Your task to perform on an android device: install app "LiveIn - Share Your Moment" Image 0: 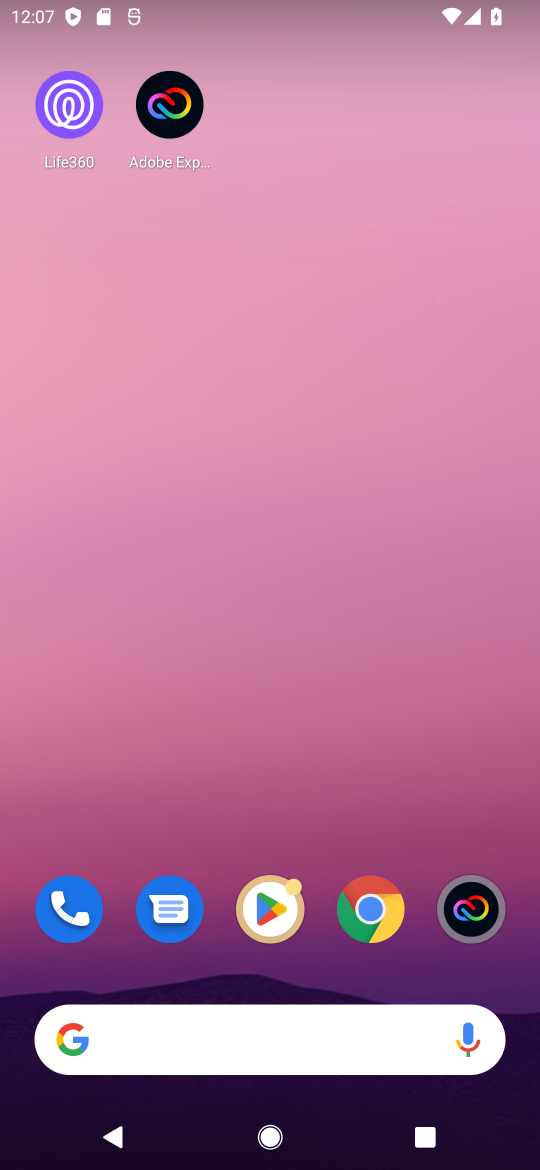
Step 0: click (255, 914)
Your task to perform on an android device: install app "LiveIn - Share Your Moment" Image 1: 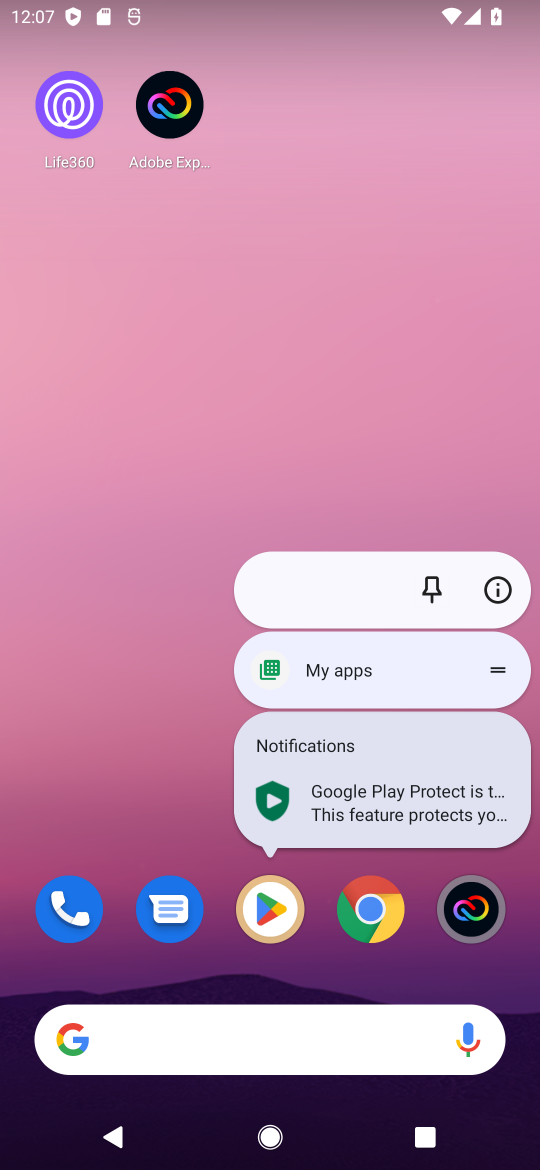
Step 1: click (272, 908)
Your task to perform on an android device: install app "LiveIn - Share Your Moment" Image 2: 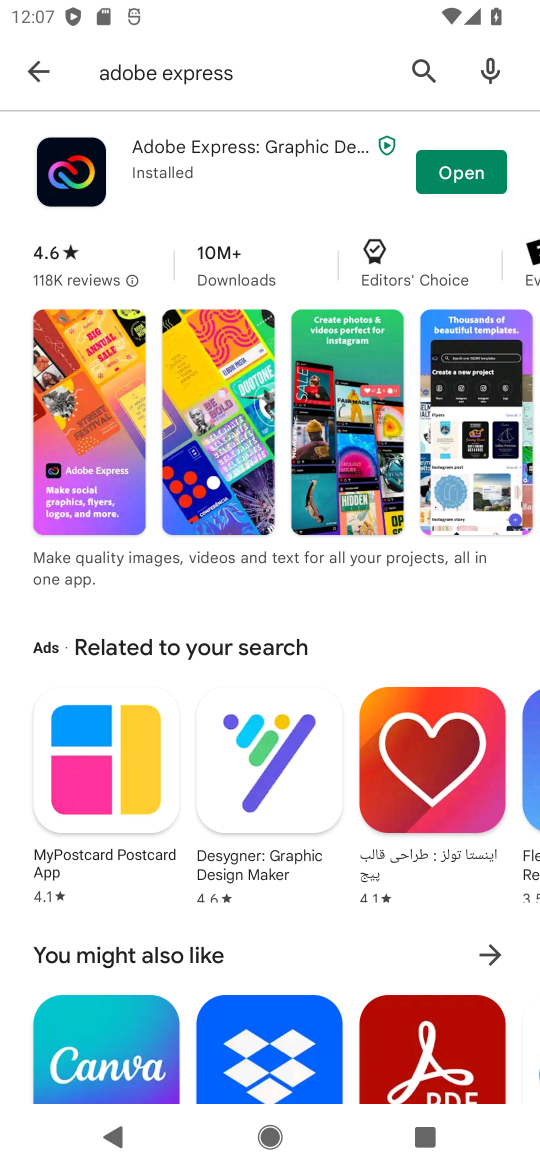
Step 2: click (426, 71)
Your task to perform on an android device: install app "LiveIn - Share Your Moment" Image 3: 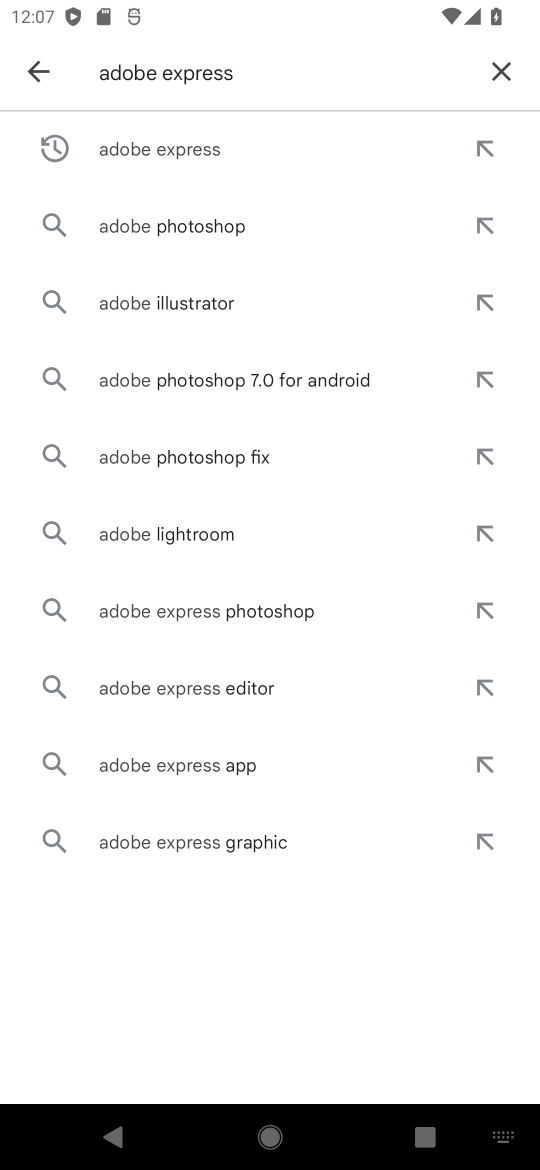
Step 3: click (495, 69)
Your task to perform on an android device: install app "LiveIn - Share Your Moment" Image 4: 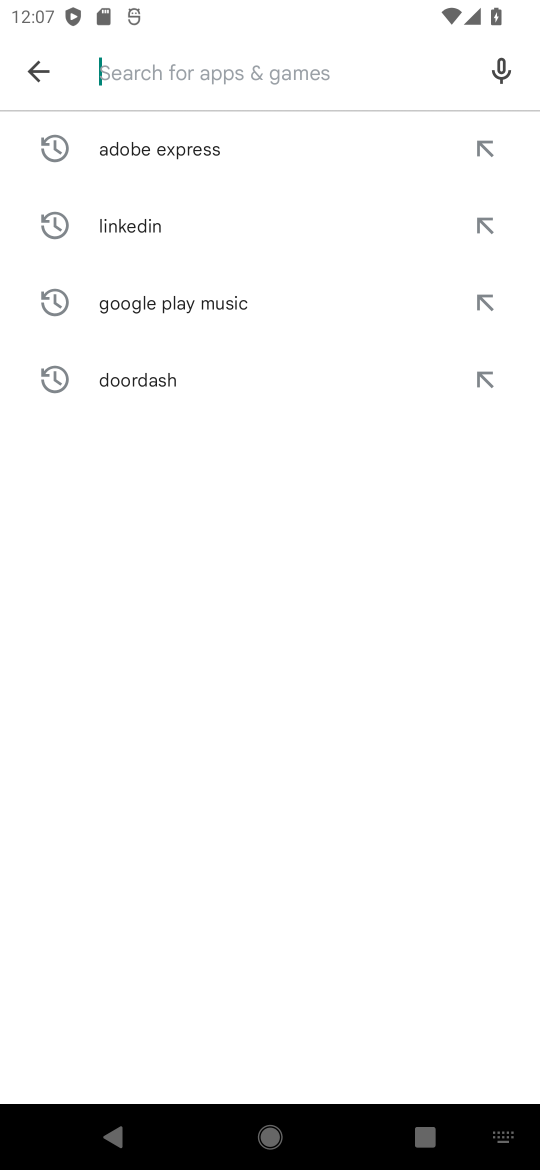
Step 4: click (167, 83)
Your task to perform on an android device: install app "LiveIn - Share Your Moment" Image 5: 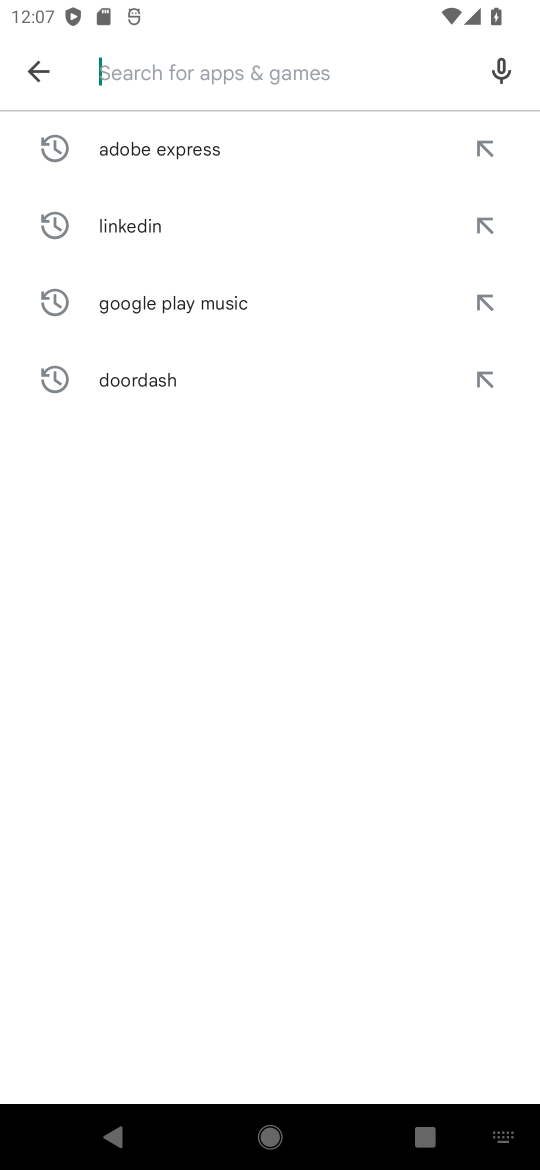
Step 5: type "LiveIn"
Your task to perform on an android device: install app "LiveIn - Share Your Moment" Image 6: 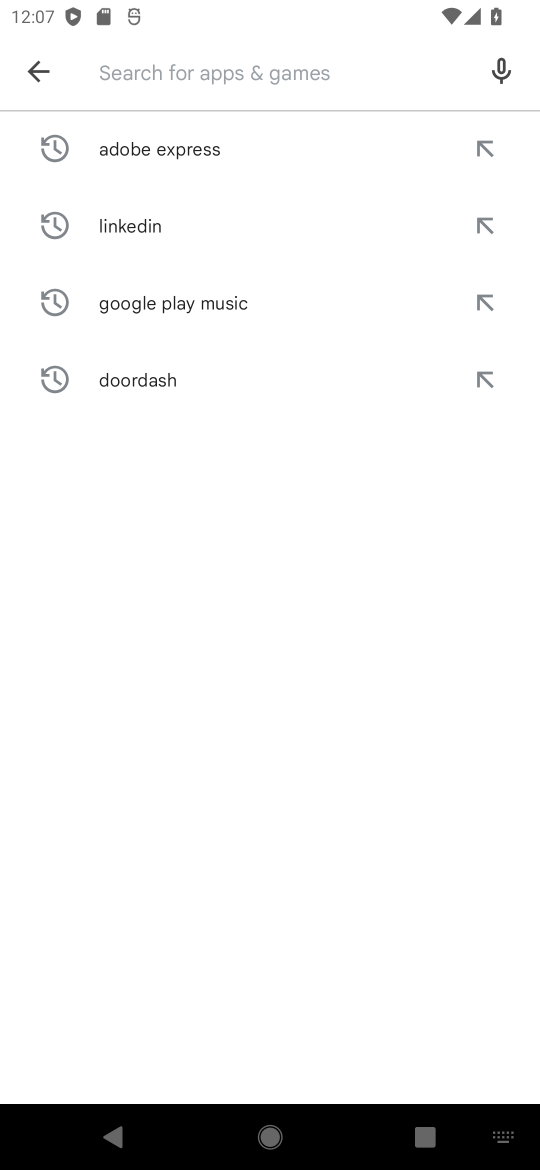
Step 6: click (269, 794)
Your task to perform on an android device: install app "LiveIn - Share Your Moment" Image 7: 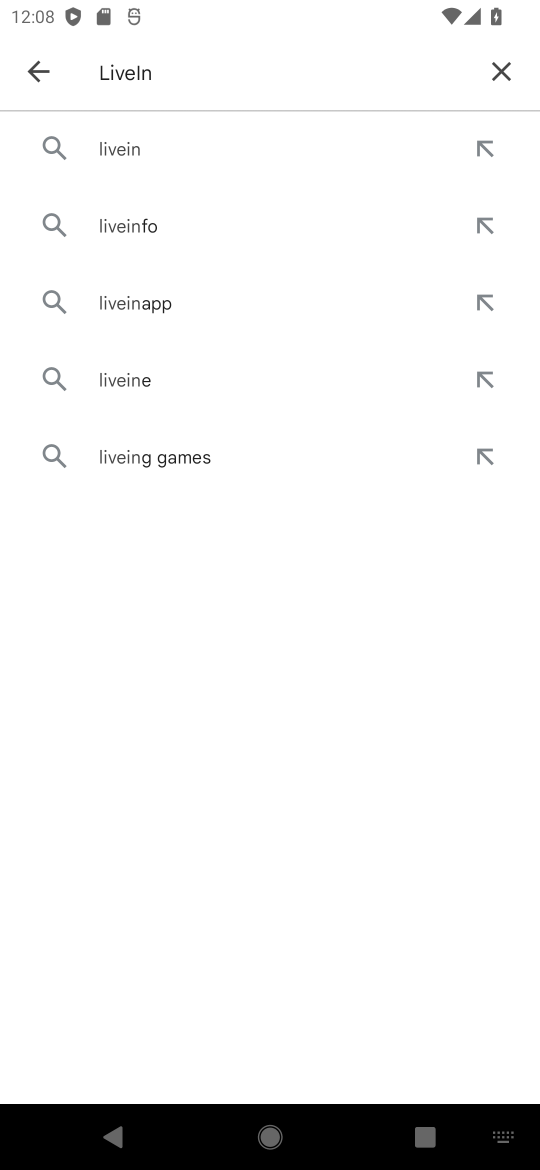
Step 7: click (157, 143)
Your task to perform on an android device: install app "LiveIn - Share Your Moment" Image 8: 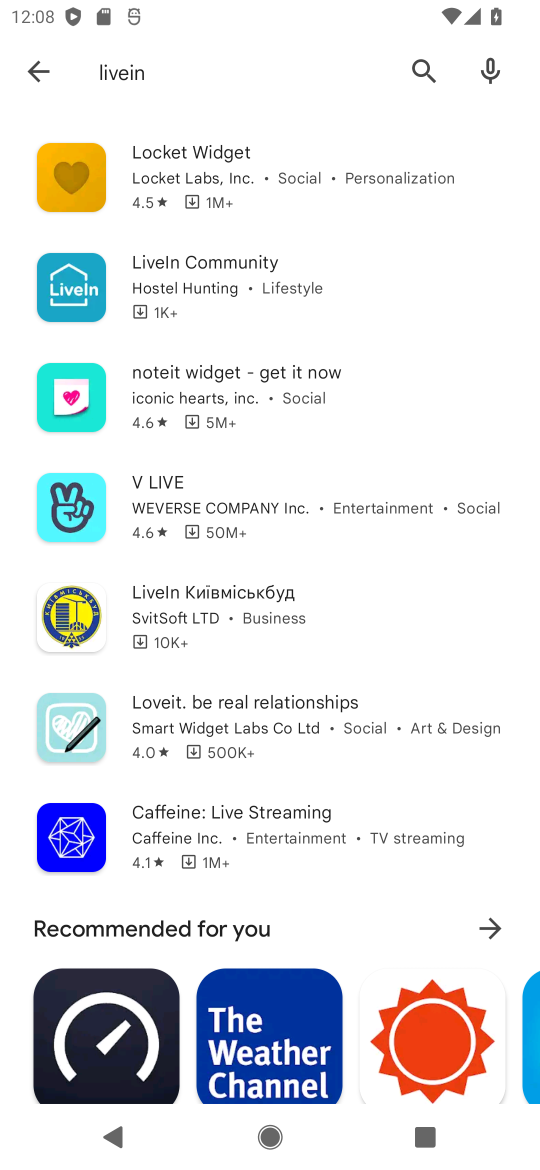
Step 8: click (262, 276)
Your task to perform on an android device: install app "LiveIn - Share Your Moment" Image 9: 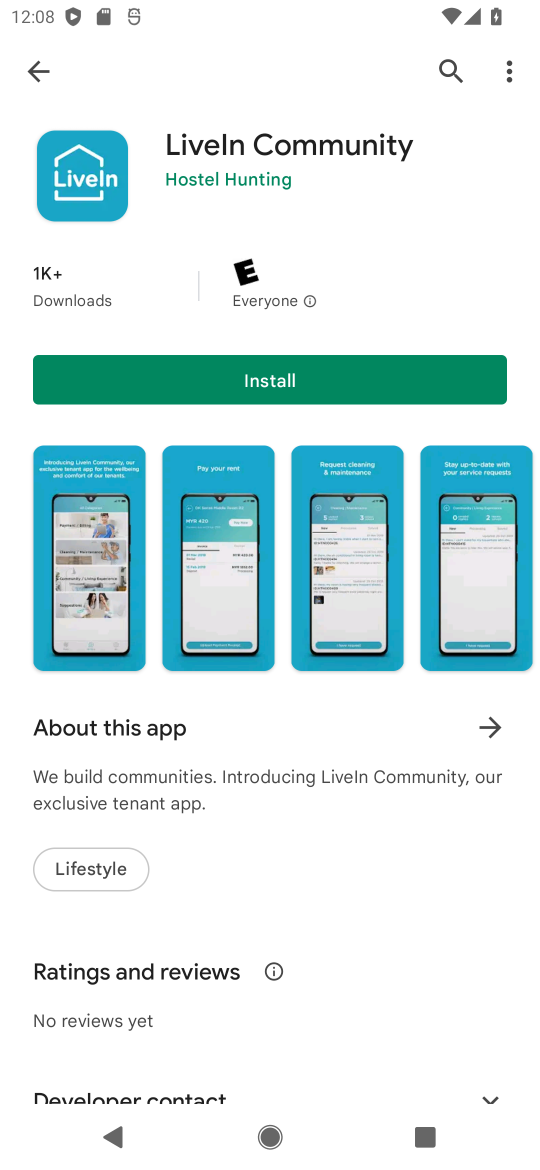
Step 9: click (246, 383)
Your task to perform on an android device: install app "LiveIn - Share Your Moment" Image 10: 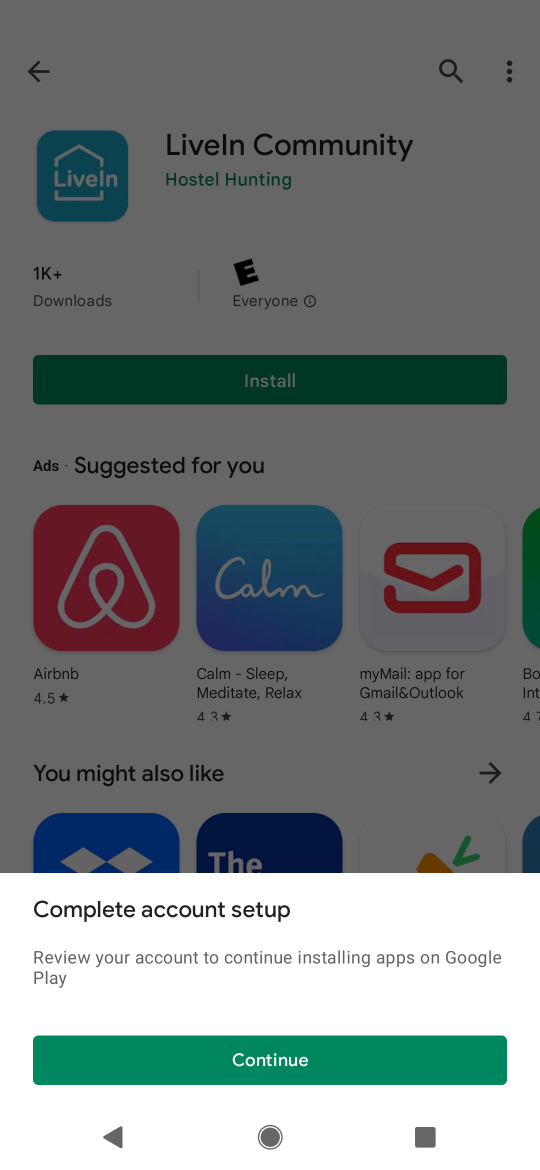
Step 10: click (259, 1071)
Your task to perform on an android device: install app "LiveIn - Share Your Moment" Image 11: 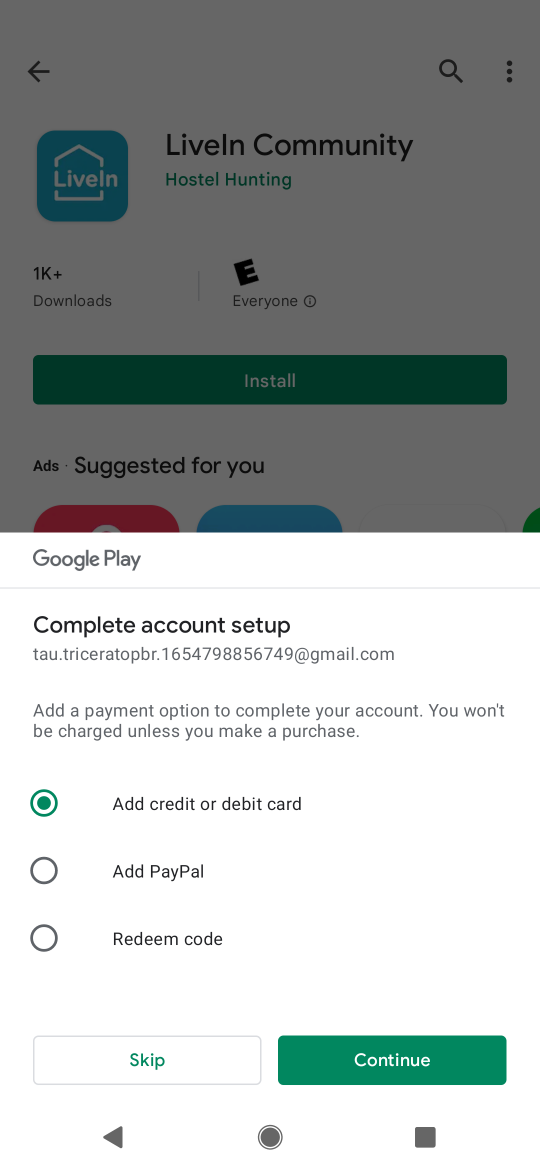
Step 11: click (187, 1061)
Your task to perform on an android device: install app "LiveIn - Share Your Moment" Image 12: 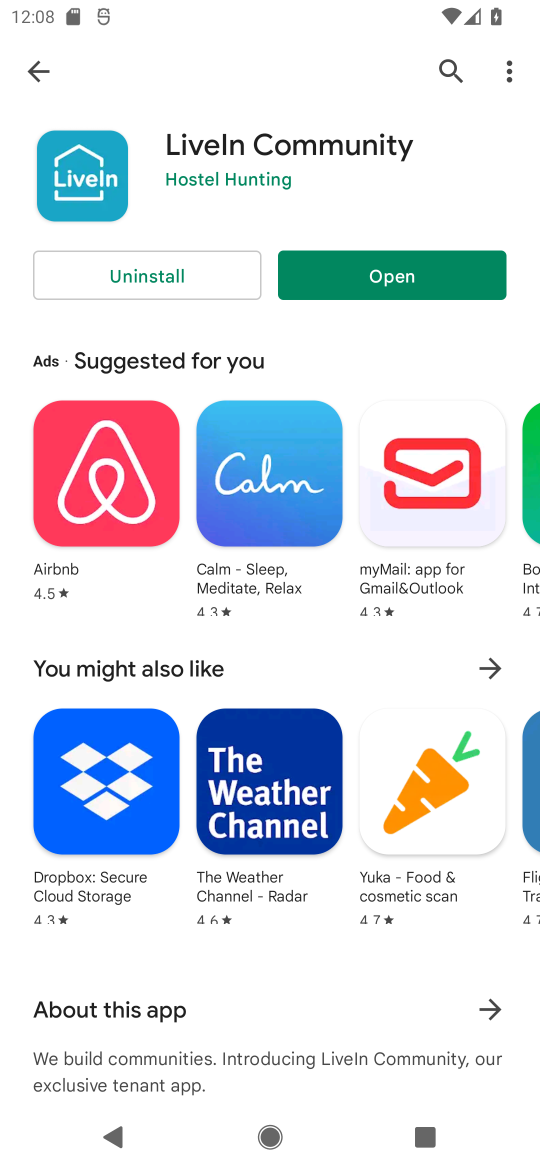
Step 12: task complete